Your task to perform on an android device: open a bookmark in the chrome app Image 0: 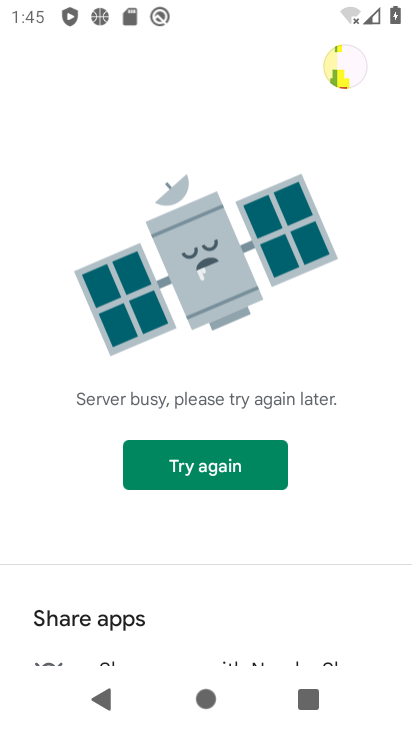
Step 0: press home button
Your task to perform on an android device: open a bookmark in the chrome app Image 1: 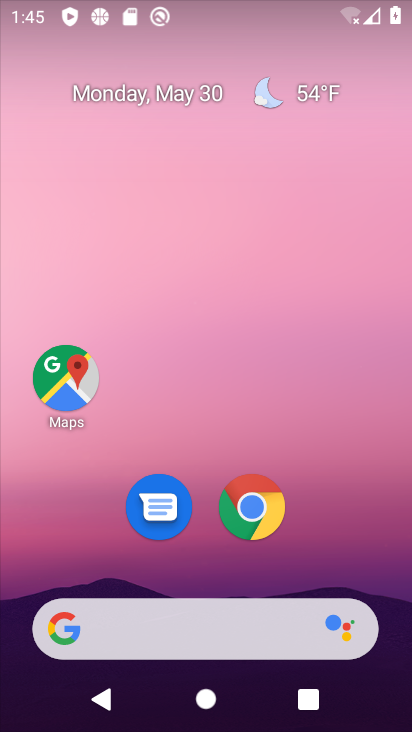
Step 1: drag from (393, 638) to (232, 101)
Your task to perform on an android device: open a bookmark in the chrome app Image 2: 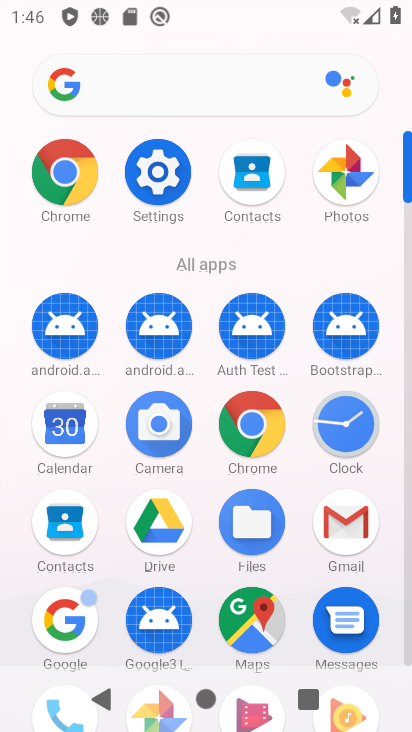
Step 2: click (277, 434)
Your task to perform on an android device: open a bookmark in the chrome app Image 3: 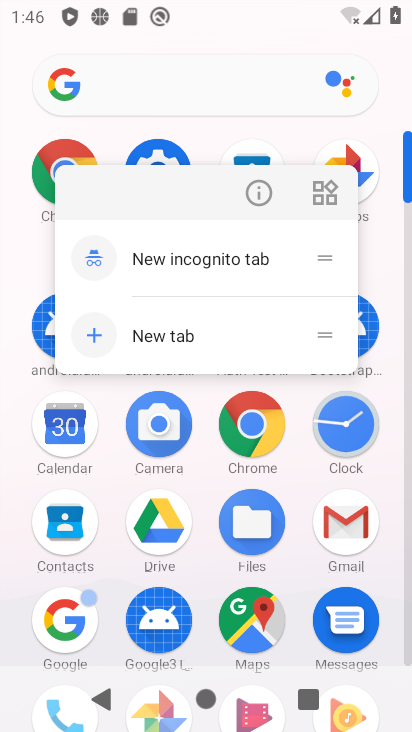
Step 3: click (257, 427)
Your task to perform on an android device: open a bookmark in the chrome app Image 4: 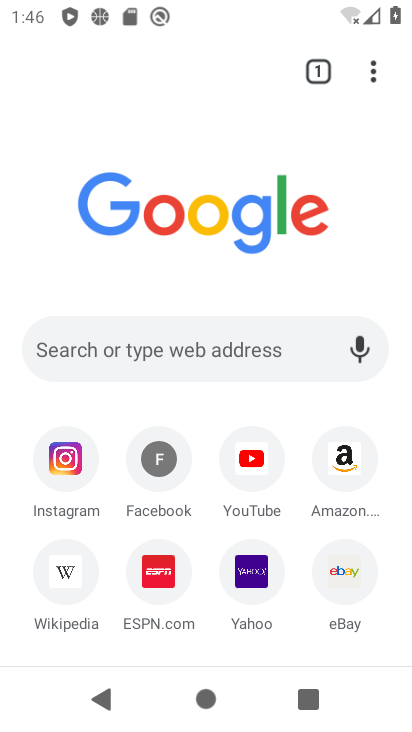
Step 4: click (377, 78)
Your task to perform on an android device: open a bookmark in the chrome app Image 5: 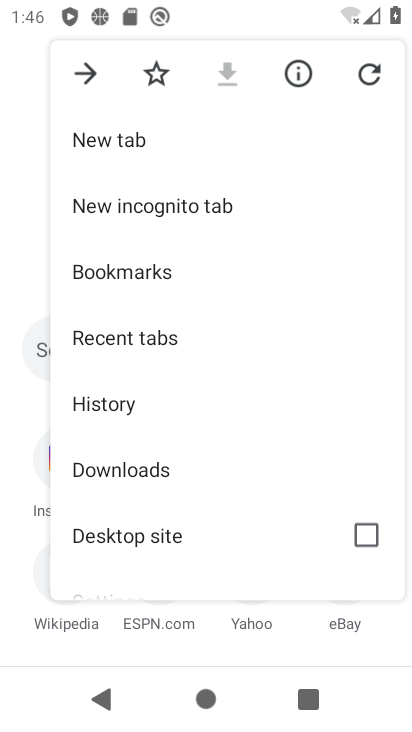
Step 5: click (224, 283)
Your task to perform on an android device: open a bookmark in the chrome app Image 6: 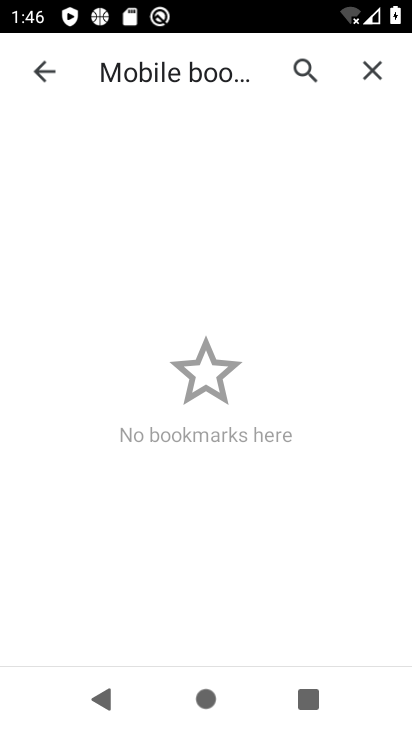
Step 6: task complete